Your task to perform on an android device: Open calendar and show me the first week of next month Image 0: 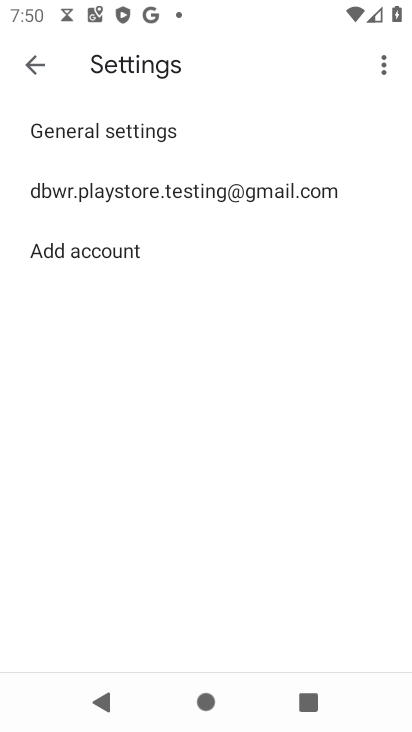
Step 0: press home button
Your task to perform on an android device: Open calendar and show me the first week of next month Image 1: 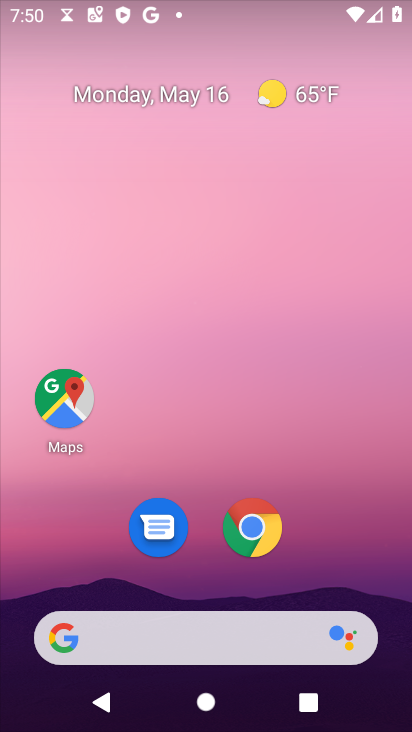
Step 1: drag from (222, 507) to (238, 242)
Your task to perform on an android device: Open calendar and show me the first week of next month Image 2: 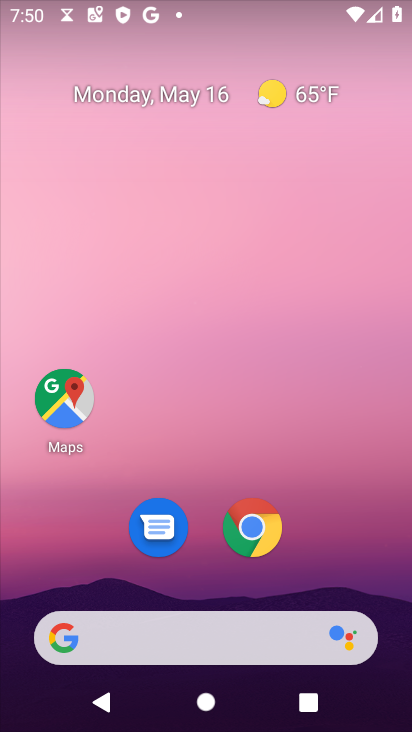
Step 2: drag from (187, 597) to (249, 233)
Your task to perform on an android device: Open calendar and show me the first week of next month Image 3: 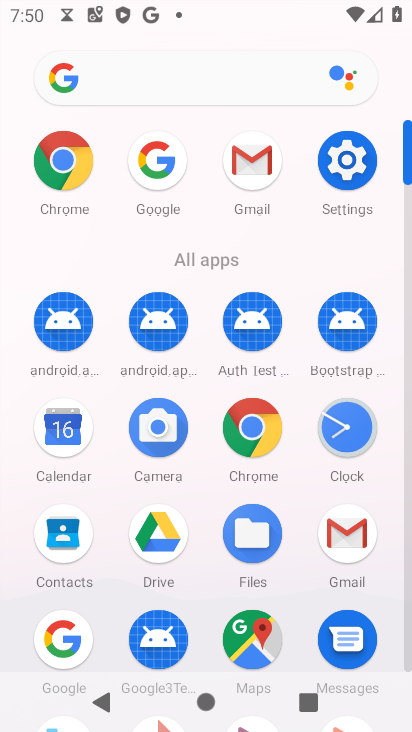
Step 3: click (60, 414)
Your task to perform on an android device: Open calendar and show me the first week of next month Image 4: 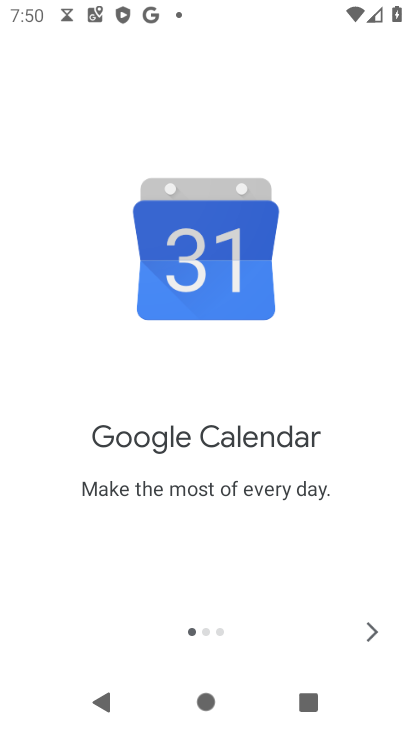
Step 4: click (356, 622)
Your task to perform on an android device: Open calendar and show me the first week of next month Image 5: 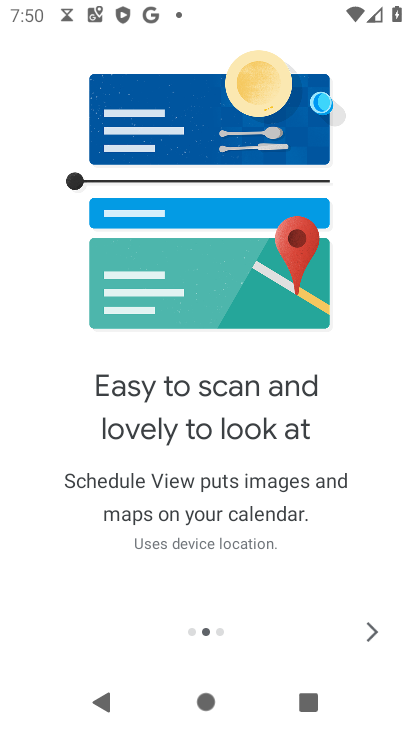
Step 5: click (359, 623)
Your task to perform on an android device: Open calendar and show me the first week of next month Image 6: 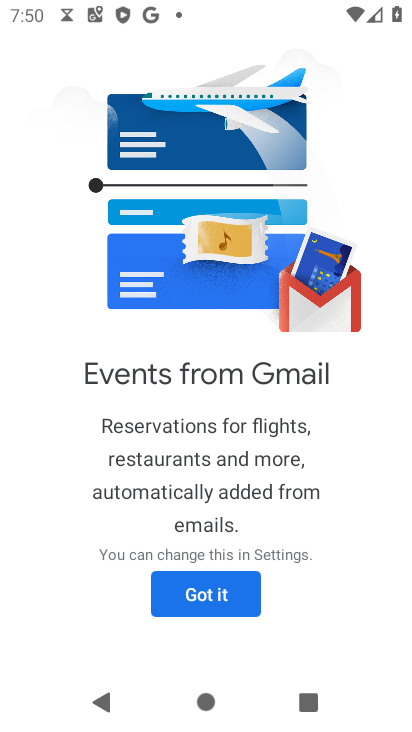
Step 6: click (359, 623)
Your task to perform on an android device: Open calendar and show me the first week of next month Image 7: 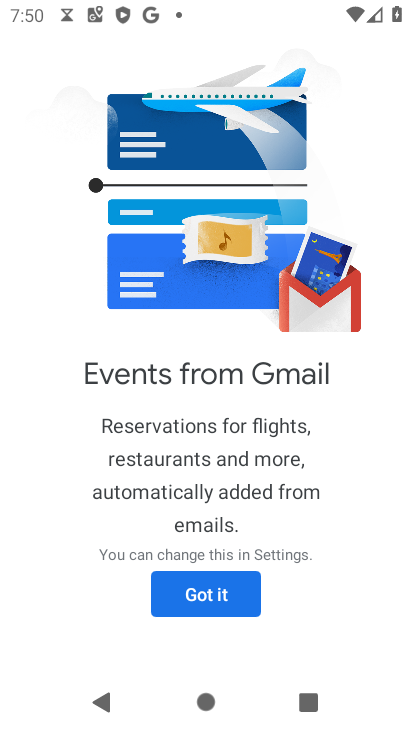
Step 7: click (189, 586)
Your task to perform on an android device: Open calendar and show me the first week of next month Image 8: 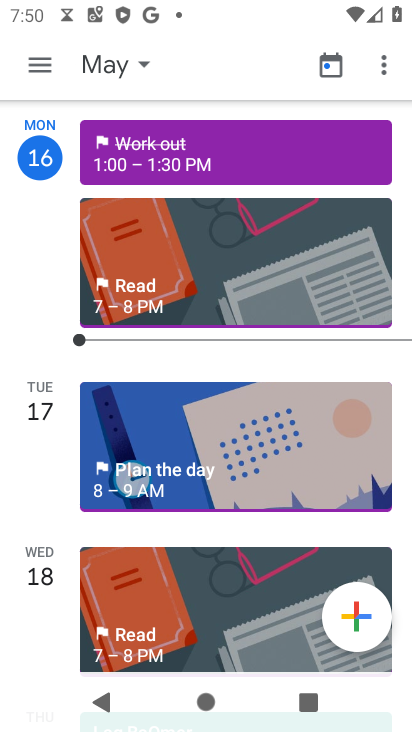
Step 8: click (32, 63)
Your task to perform on an android device: Open calendar and show me the first week of next month Image 9: 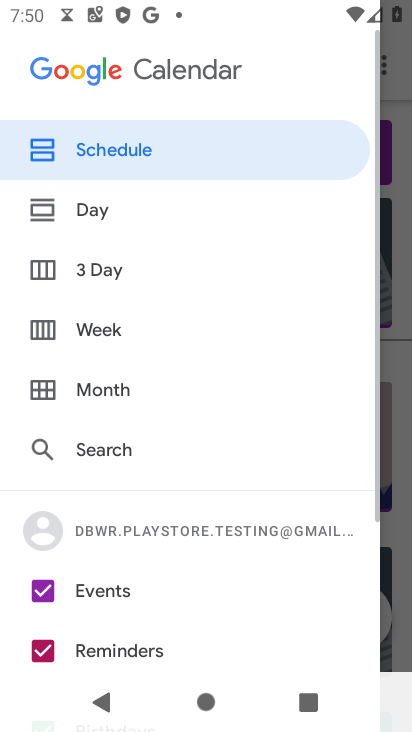
Step 9: click (129, 373)
Your task to perform on an android device: Open calendar and show me the first week of next month Image 10: 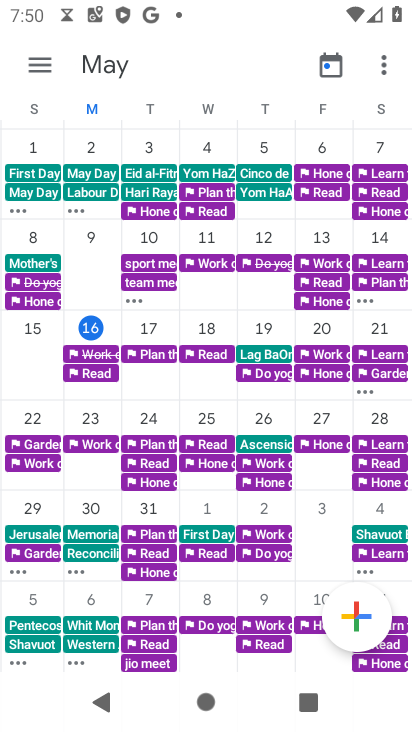
Step 10: task complete